Your task to perform on an android device: Go to Google maps Image 0: 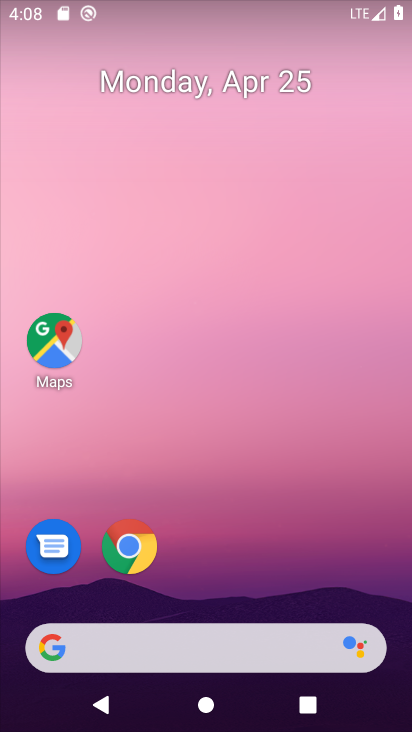
Step 0: click (41, 330)
Your task to perform on an android device: Go to Google maps Image 1: 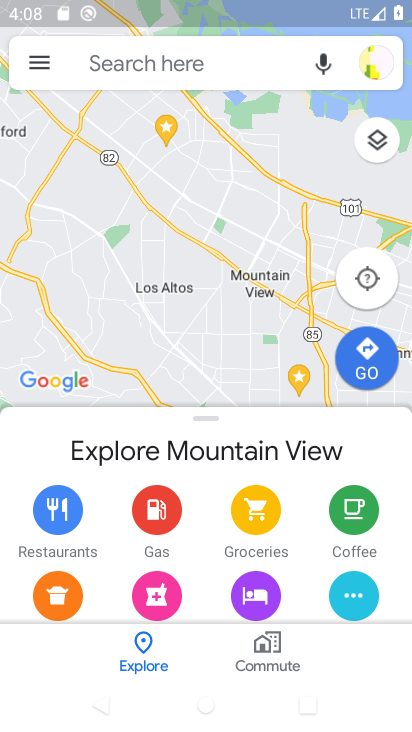
Step 1: task complete